Your task to perform on an android device: refresh tabs in the chrome app Image 0: 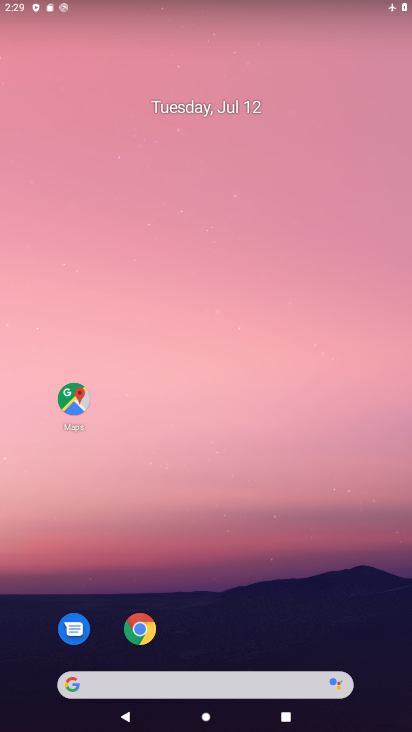
Step 0: drag from (322, 643) to (408, 394)
Your task to perform on an android device: refresh tabs in the chrome app Image 1: 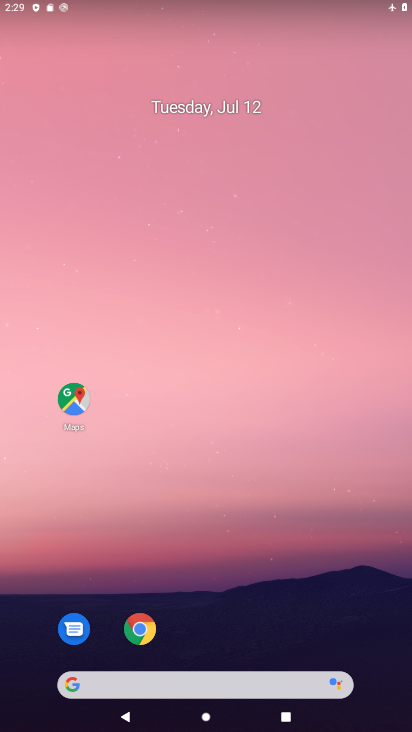
Step 1: click (133, 341)
Your task to perform on an android device: refresh tabs in the chrome app Image 2: 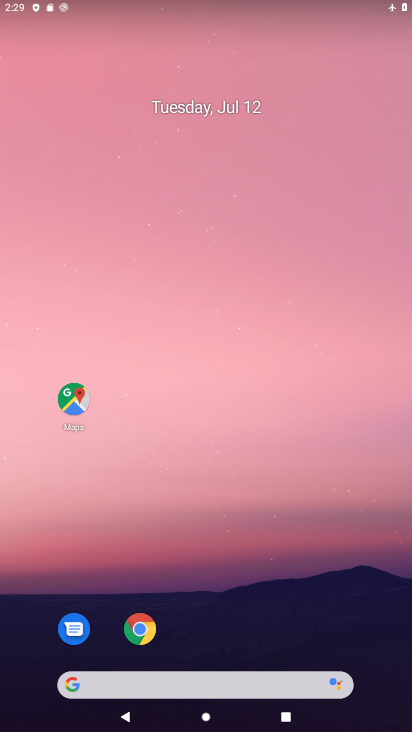
Step 2: drag from (215, 639) to (245, 16)
Your task to perform on an android device: refresh tabs in the chrome app Image 3: 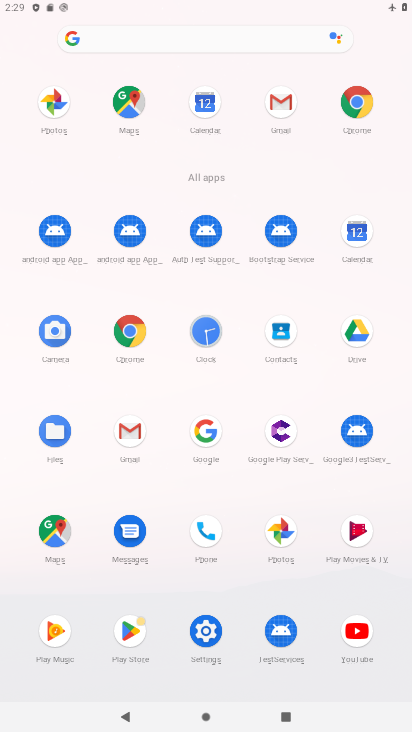
Step 3: click (129, 326)
Your task to perform on an android device: refresh tabs in the chrome app Image 4: 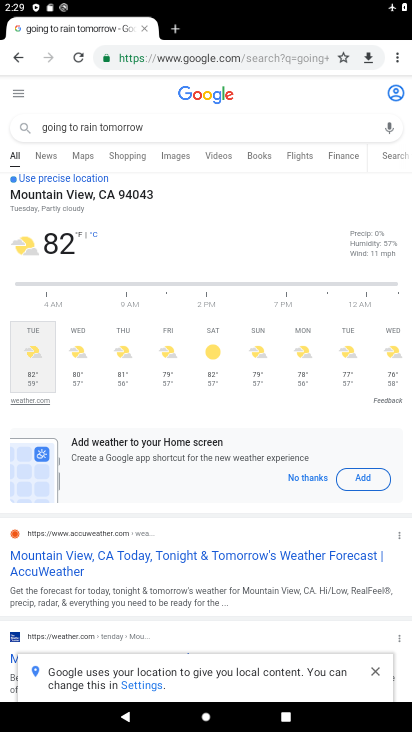
Step 4: click (82, 55)
Your task to perform on an android device: refresh tabs in the chrome app Image 5: 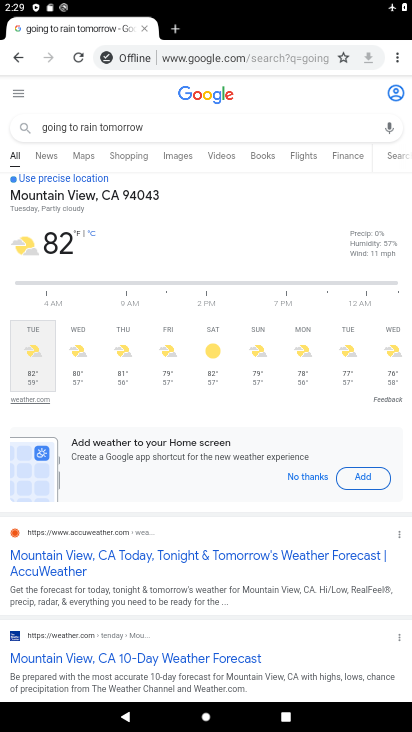
Step 5: task complete